Your task to perform on an android device: Open calendar and show me the fourth week of next month Image 0: 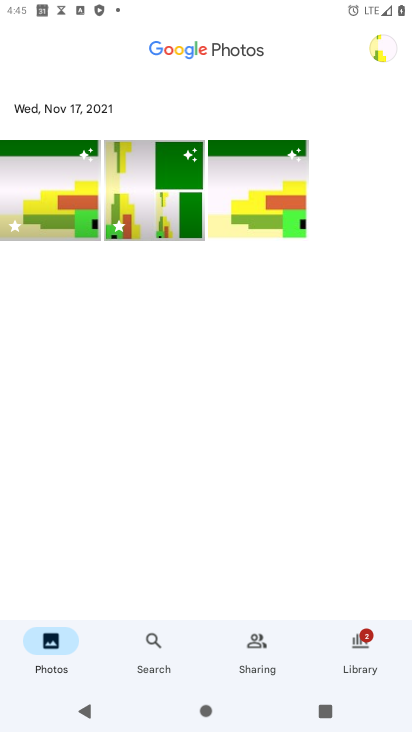
Step 0: press home button
Your task to perform on an android device: Open calendar and show me the fourth week of next month Image 1: 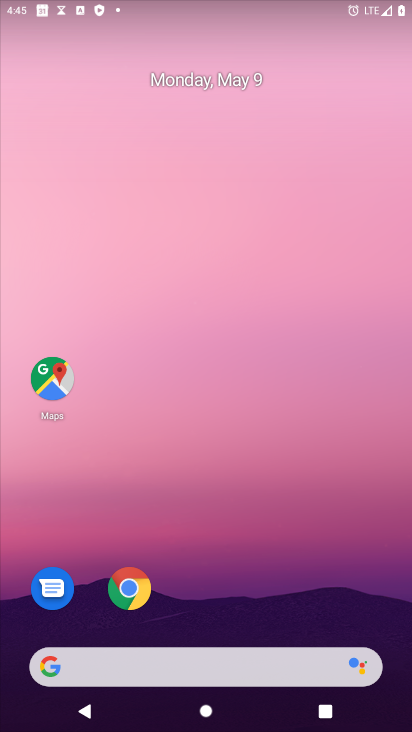
Step 1: drag from (317, 514) to (257, 80)
Your task to perform on an android device: Open calendar and show me the fourth week of next month Image 2: 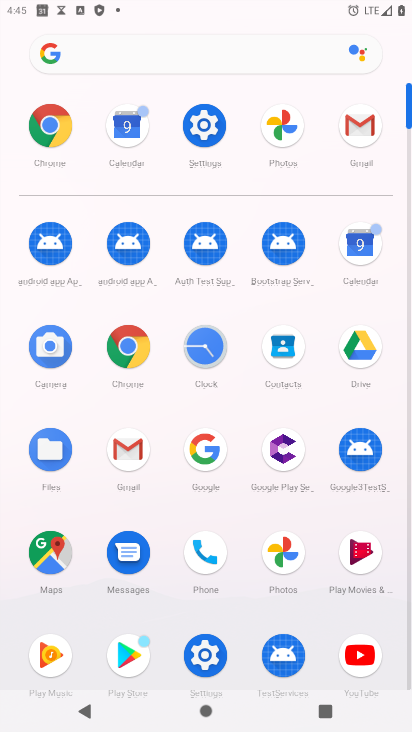
Step 2: click (349, 254)
Your task to perform on an android device: Open calendar and show me the fourth week of next month Image 3: 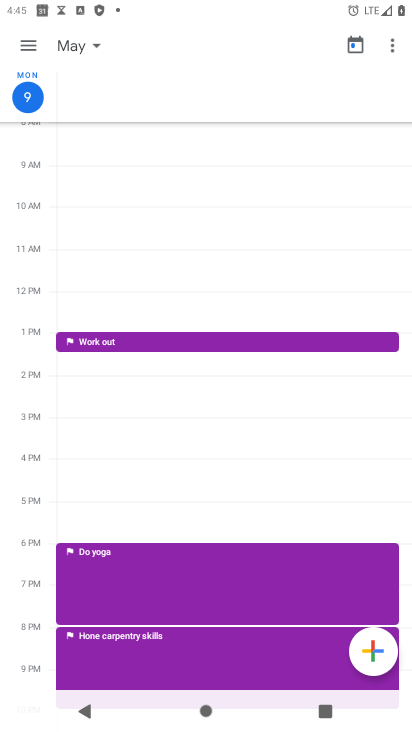
Step 3: click (25, 33)
Your task to perform on an android device: Open calendar and show me the fourth week of next month Image 4: 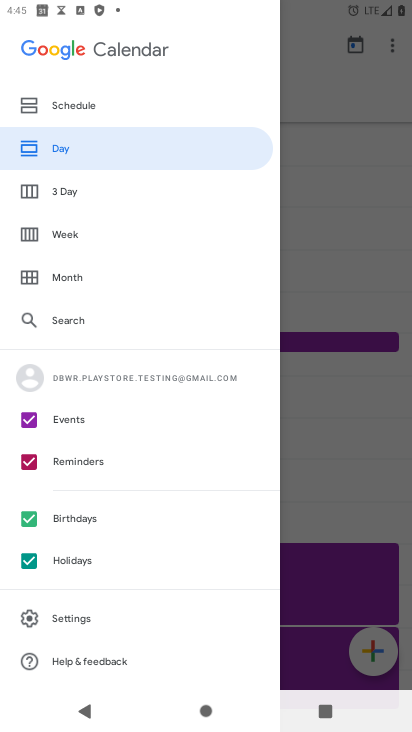
Step 4: click (93, 234)
Your task to perform on an android device: Open calendar and show me the fourth week of next month Image 5: 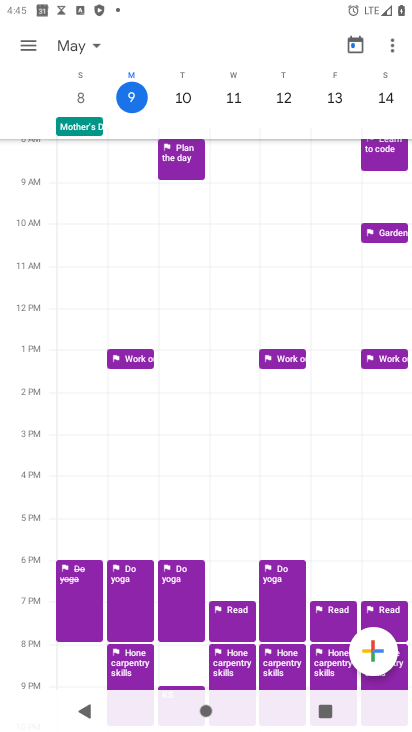
Step 5: click (90, 44)
Your task to perform on an android device: Open calendar and show me the fourth week of next month Image 6: 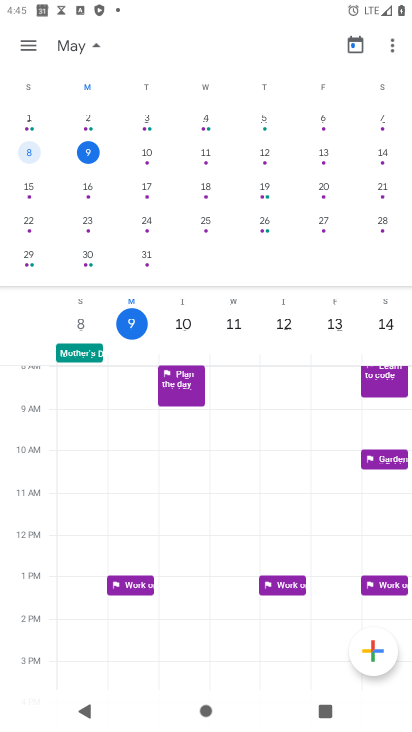
Step 6: drag from (352, 184) to (4, 226)
Your task to perform on an android device: Open calendar and show me the fourth week of next month Image 7: 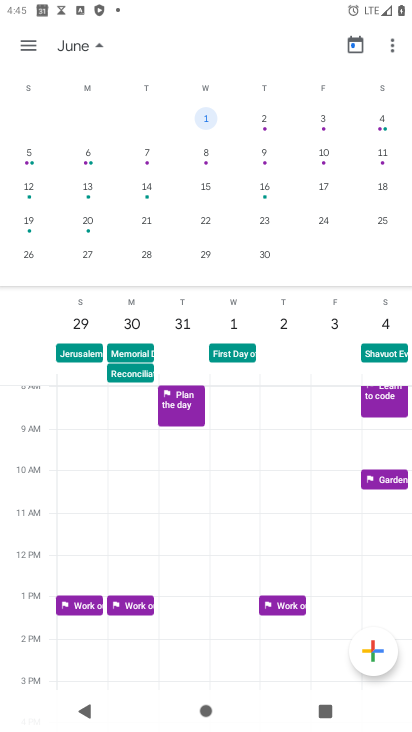
Step 7: click (36, 219)
Your task to perform on an android device: Open calendar and show me the fourth week of next month Image 8: 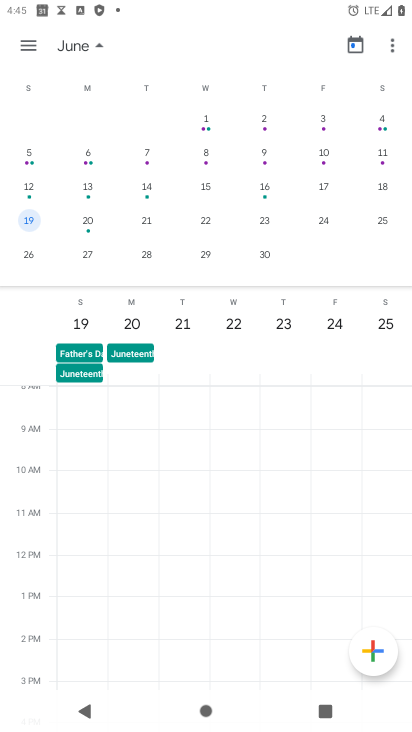
Step 8: task complete